Your task to perform on an android device: Go to eBay Image 0: 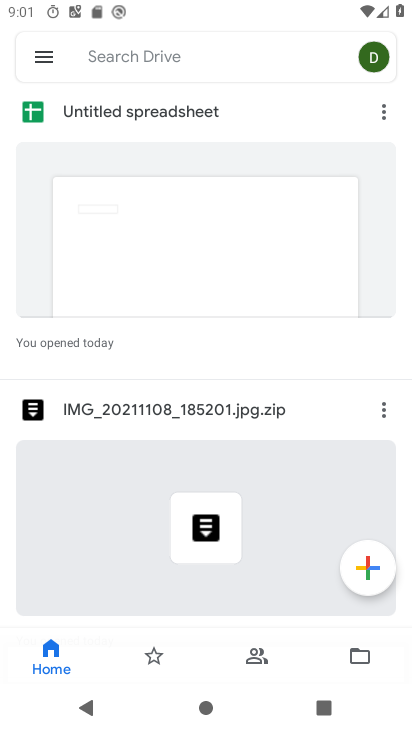
Step 0: press home button
Your task to perform on an android device: Go to eBay Image 1: 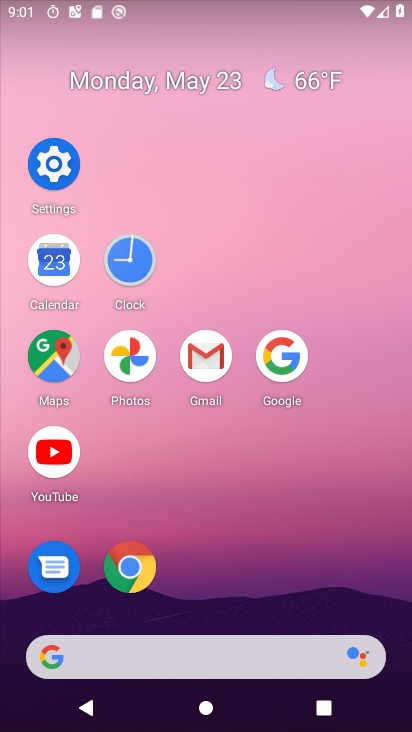
Step 1: click (140, 575)
Your task to perform on an android device: Go to eBay Image 2: 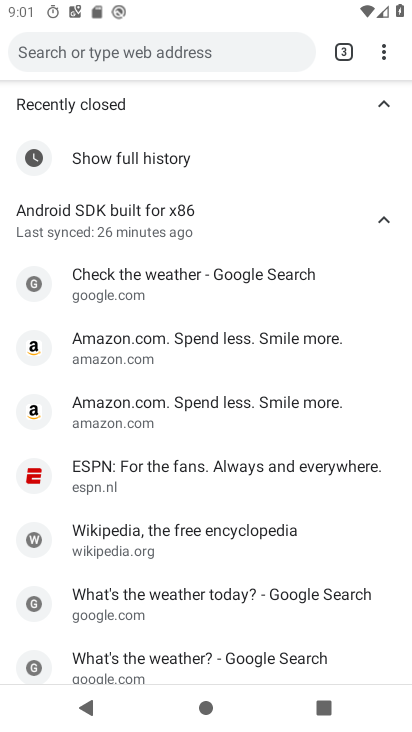
Step 2: click (341, 56)
Your task to perform on an android device: Go to eBay Image 3: 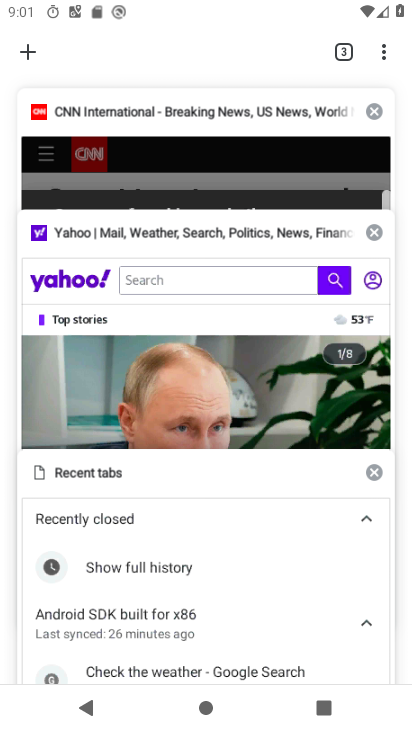
Step 3: drag from (171, 244) to (193, 471)
Your task to perform on an android device: Go to eBay Image 4: 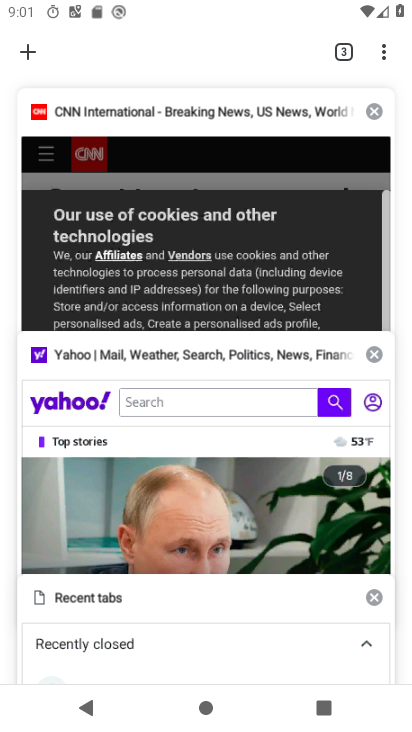
Step 4: click (21, 57)
Your task to perform on an android device: Go to eBay Image 5: 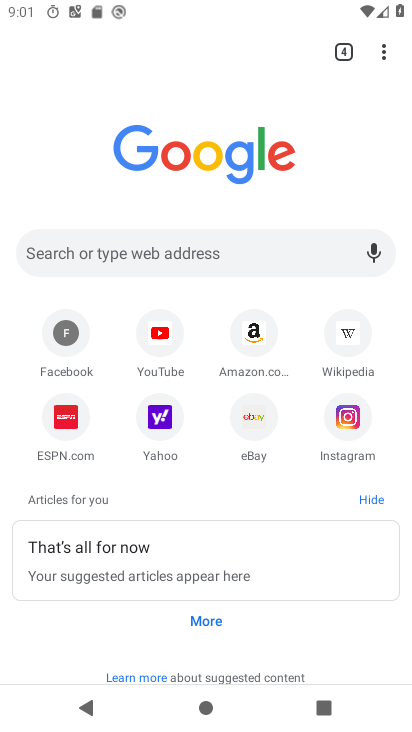
Step 5: click (251, 420)
Your task to perform on an android device: Go to eBay Image 6: 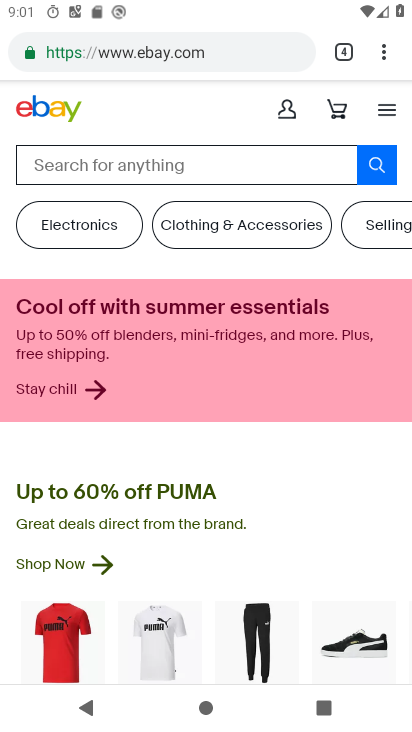
Step 6: task complete